Your task to perform on an android device: toggle javascript in the chrome app Image 0: 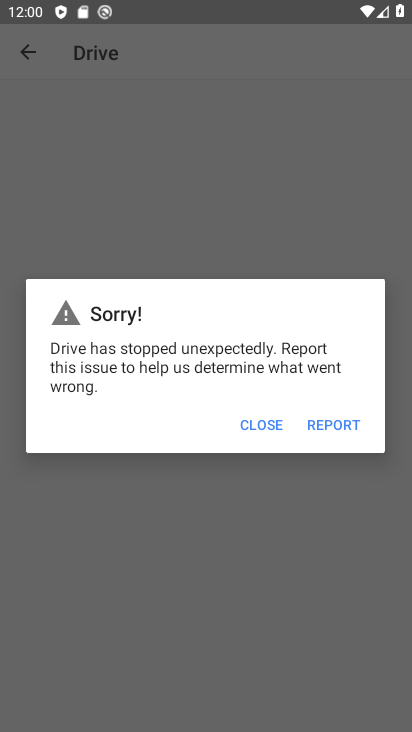
Step 0: press home button
Your task to perform on an android device: toggle javascript in the chrome app Image 1: 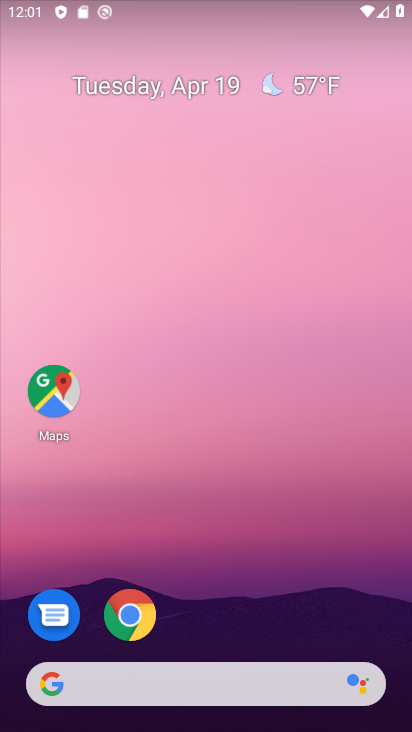
Step 1: click (129, 604)
Your task to perform on an android device: toggle javascript in the chrome app Image 2: 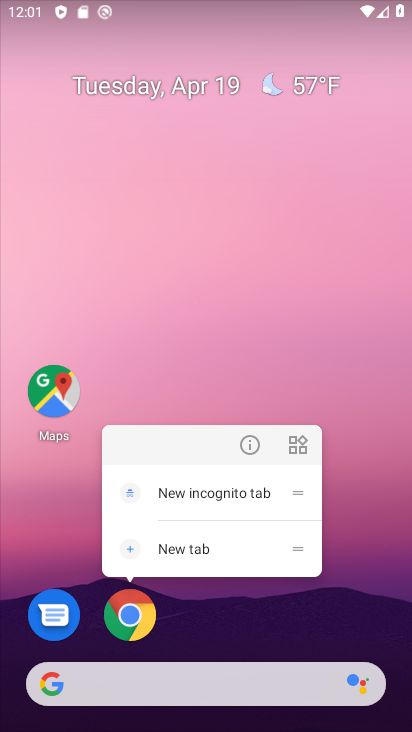
Step 2: click (142, 607)
Your task to perform on an android device: toggle javascript in the chrome app Image 3: 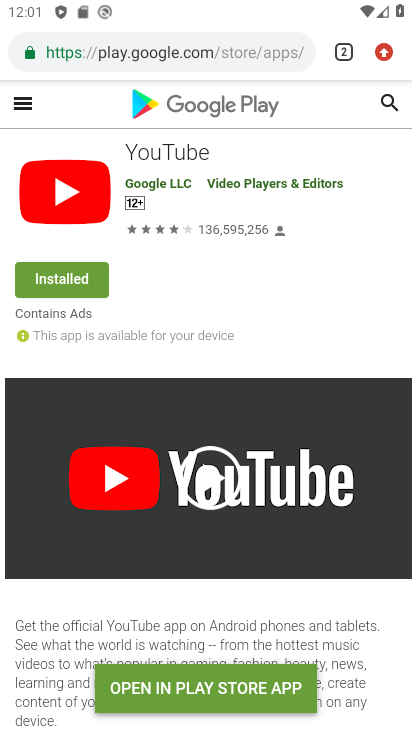
Step 3: click (386, 51)
Your task to perform on an android device: toggle javascript in the chrome app Image 4: 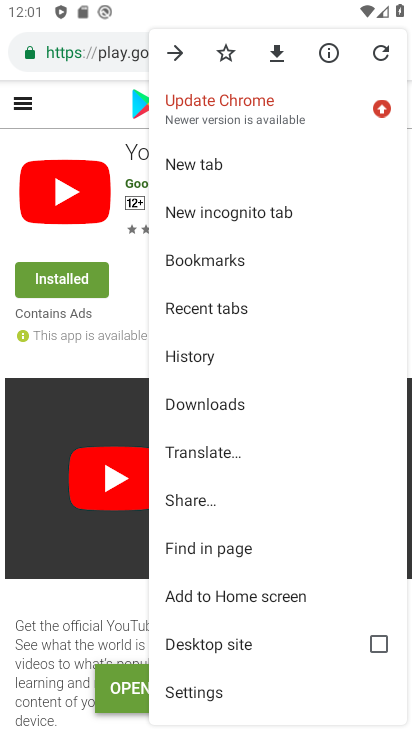
Step 4: click (240, 690)
Your task to perform on an android device: toggle javascript in the chrome app Image 5: 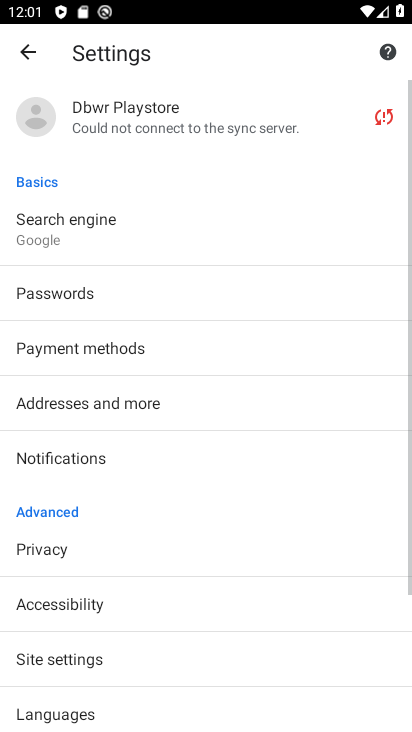
Step 5: drag from (187, 632) to (233, 320)
Your task to perform on an android device: toggle javascript in the chrome app Image 6: 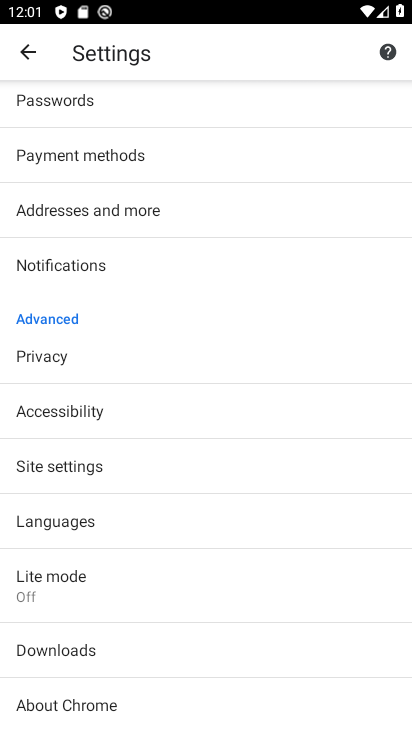
Step 6: click (89, 462)
Your task to perform on an android device: toggle javascript in the chrome app Image 7: 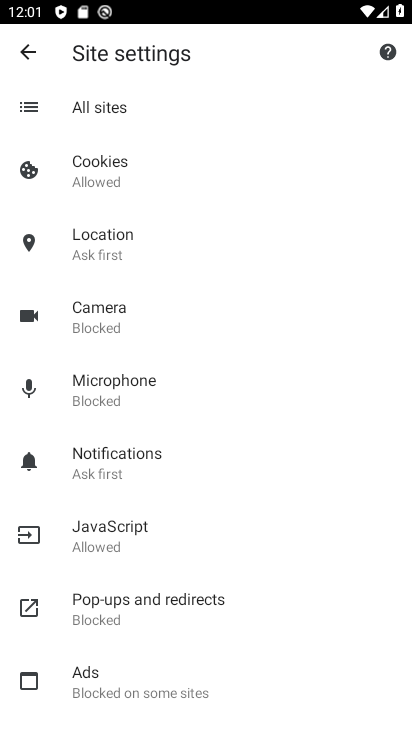
Step 7: click (143, 543)
Your task to perform on an android device: toggle javascript in the chrome app Image 8: 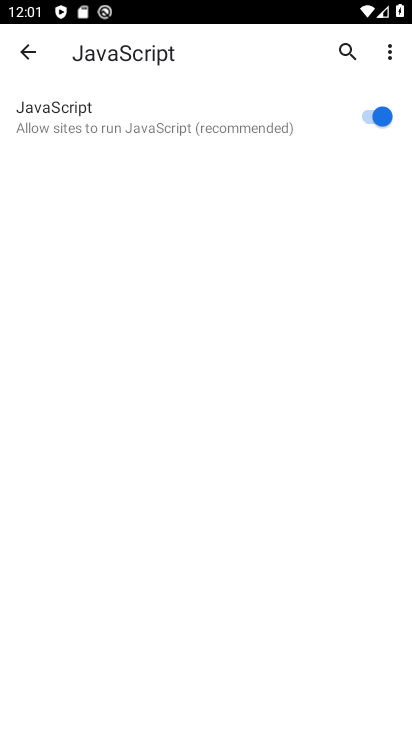
Step 8: click (367, 116)
Your task to perform on an android device: toggle javascript in the chrome app Image 9: 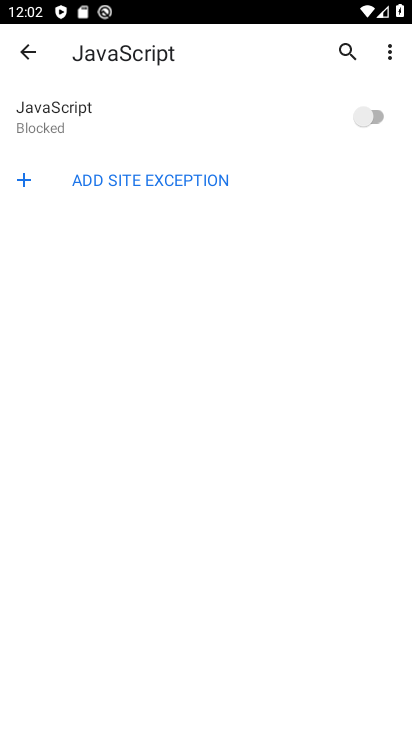
Step 9: task complete